Your task to perform on an android device: uninstall "Firefox Browser" Image 0: 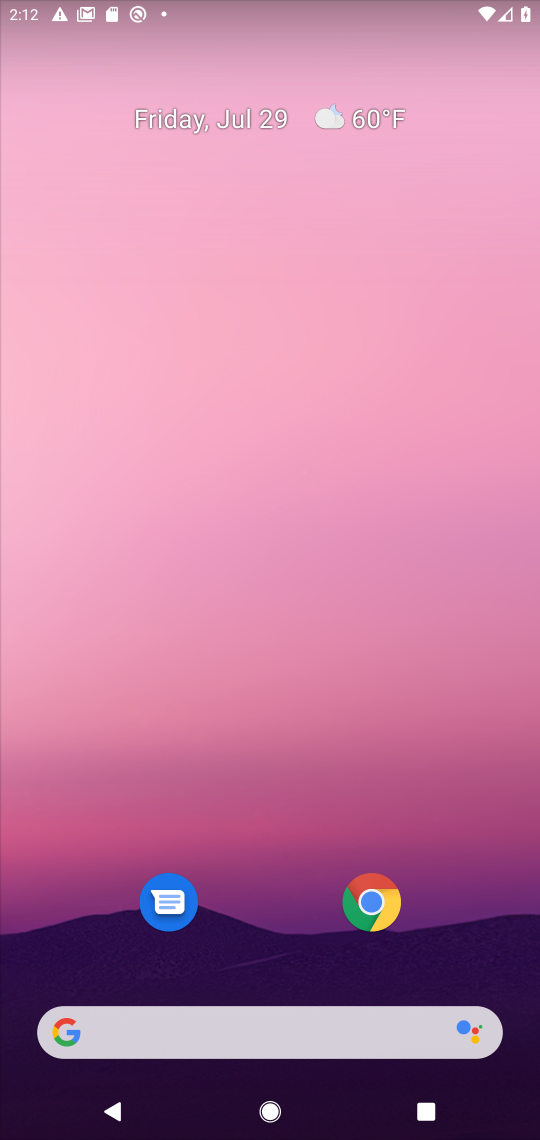
Step 0: drag from (312, 1004) to (317, 219)
Your task to perform on an android device: uninstall "Firefox Browser" Image 1: 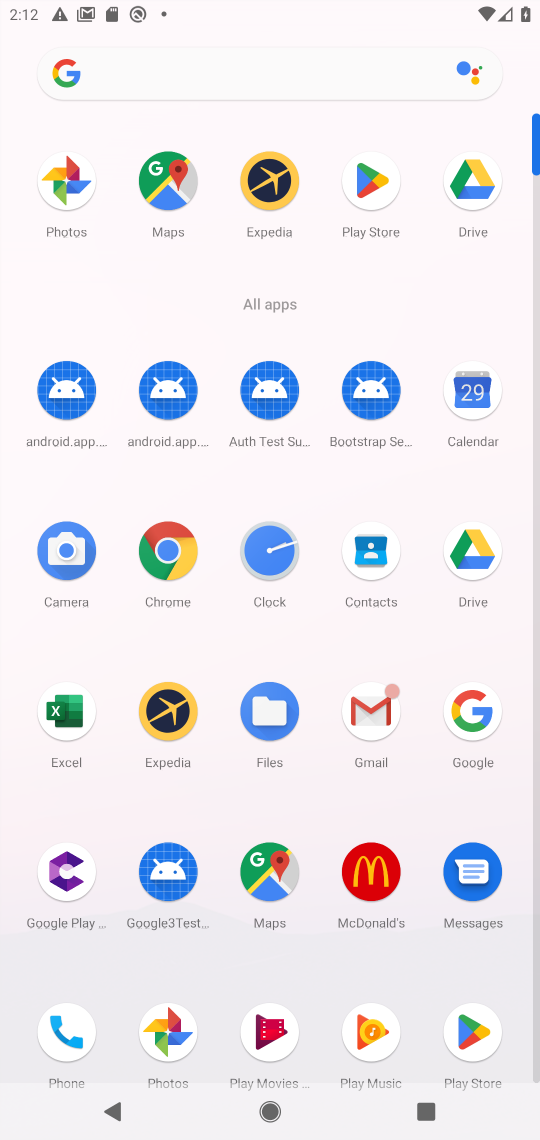
Step 1: click (361, 180)
Your task to perform on an android device: uninstall "Firefox Browser" Image 2: 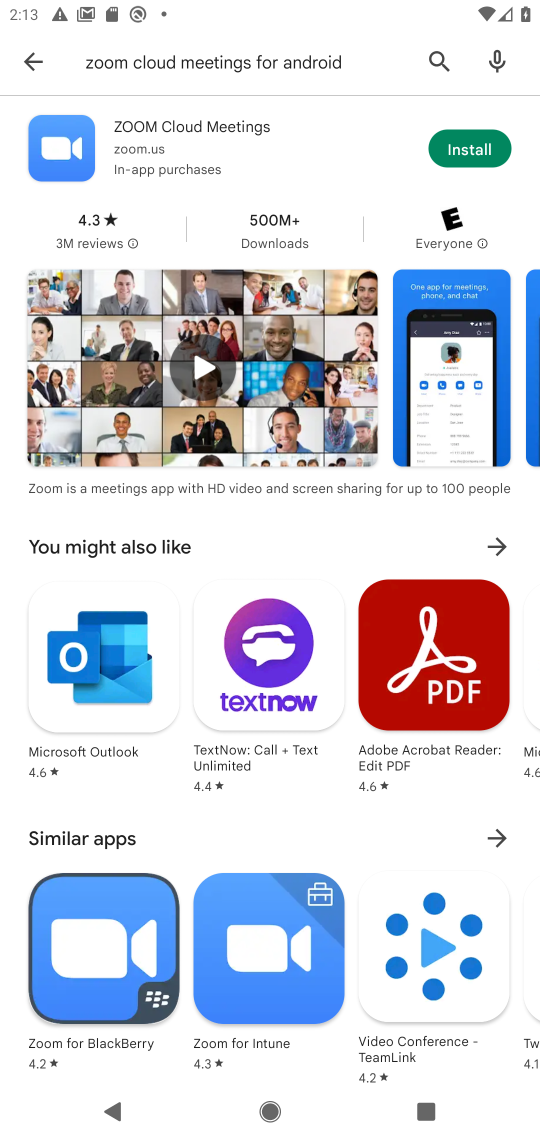
Step 2: click (432, 59)
Your task to perform on an android device: uninstall "Firefox Browser" Image 3: 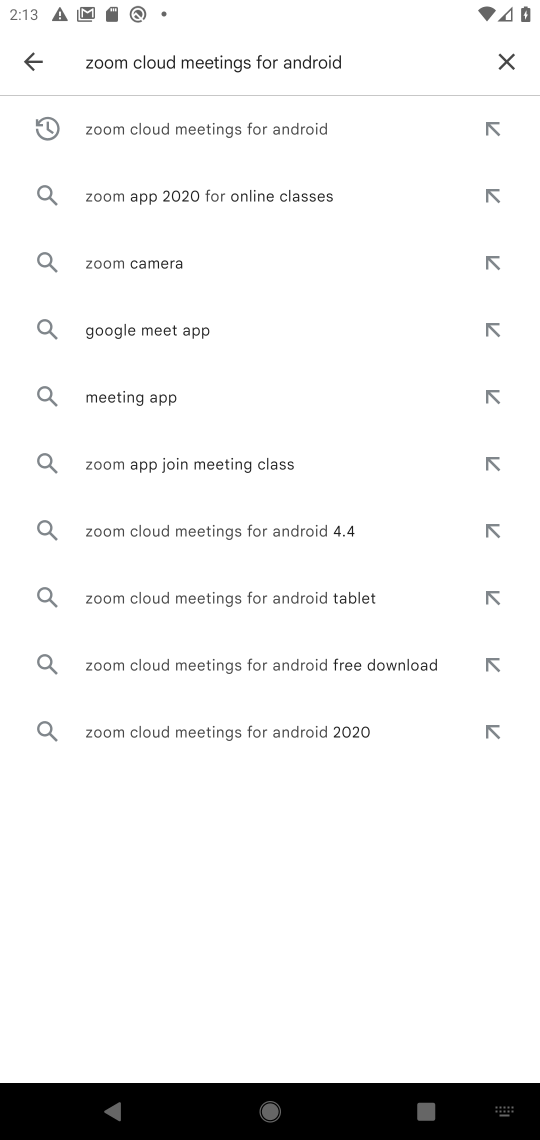
Step 3: click (506, 60)
Your task to perform on an android device: uninstall "Firefox Browser" Image 4: 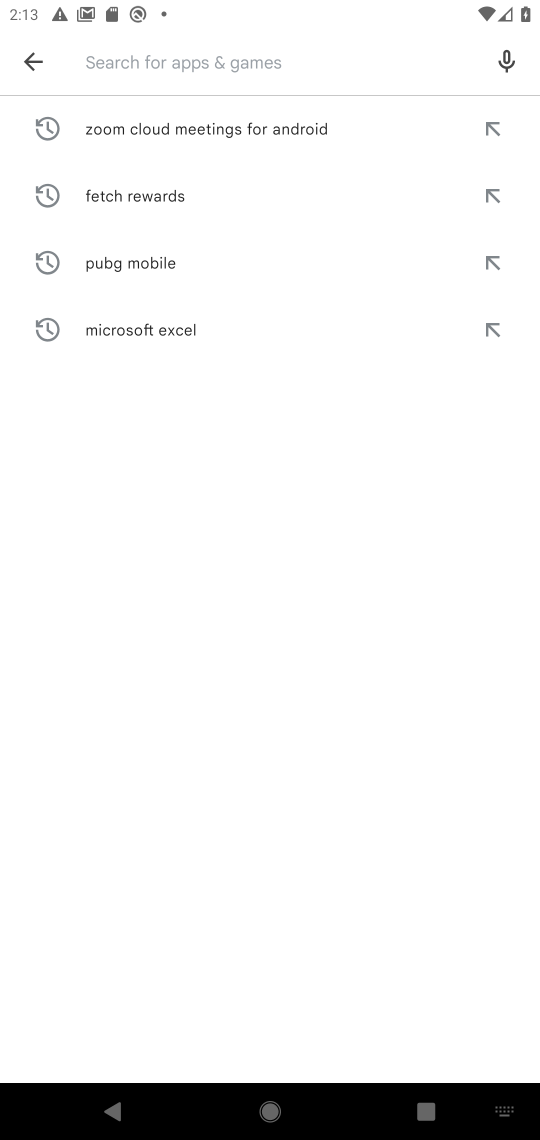
Step 4: type "Firefox Browser"
Your task to perform on an android device: uninstall "Firefox Browser" Image 5: 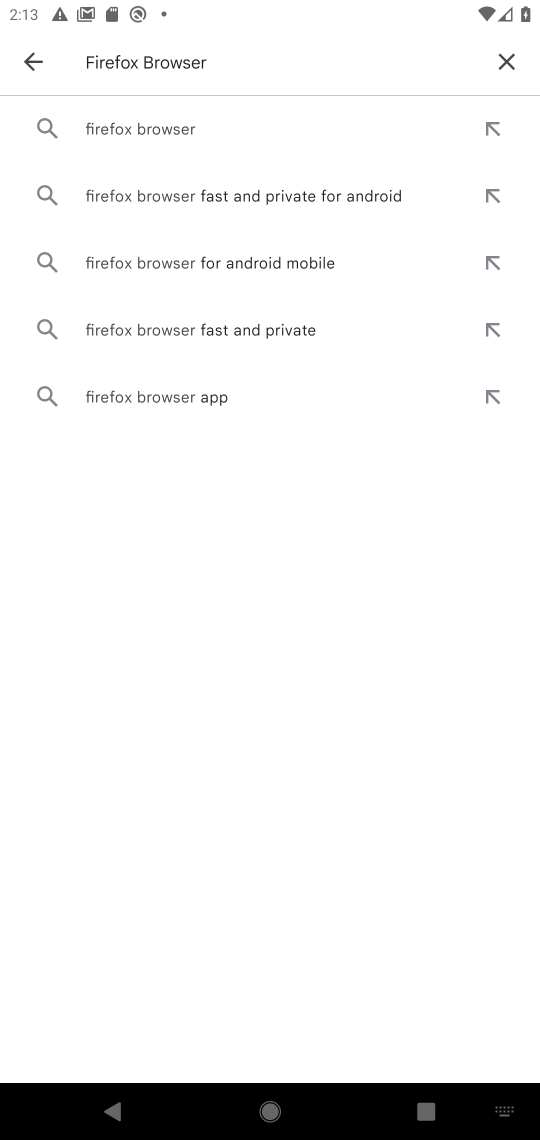
Step 5: click (157, 122)
Your task to perform on an android device: uninstall "Firefox Browser" Image 6: 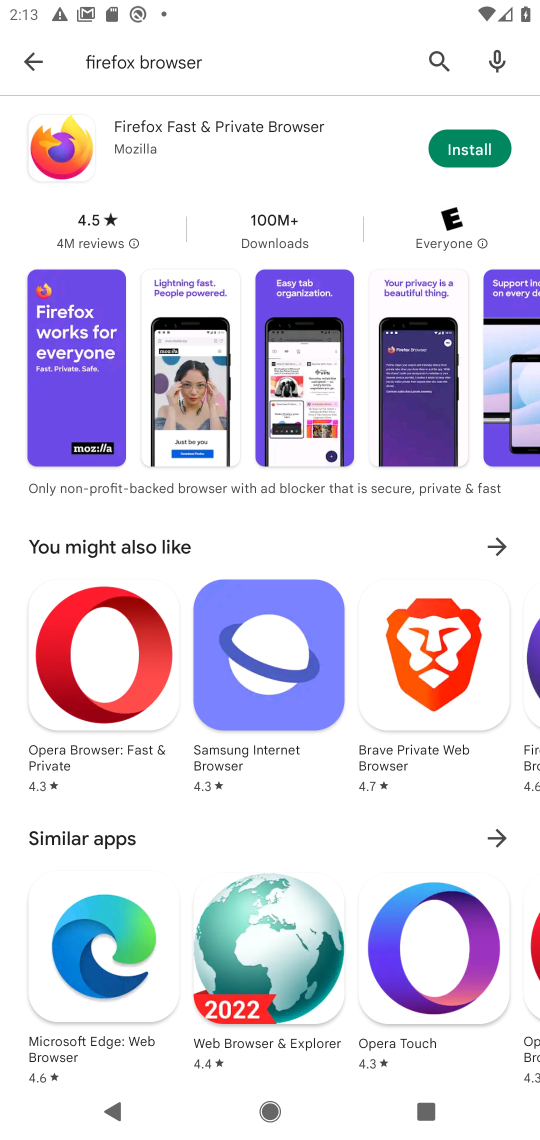
Step 6: task complete